Your task to perform on an android device: What's the weather today? Image 0: 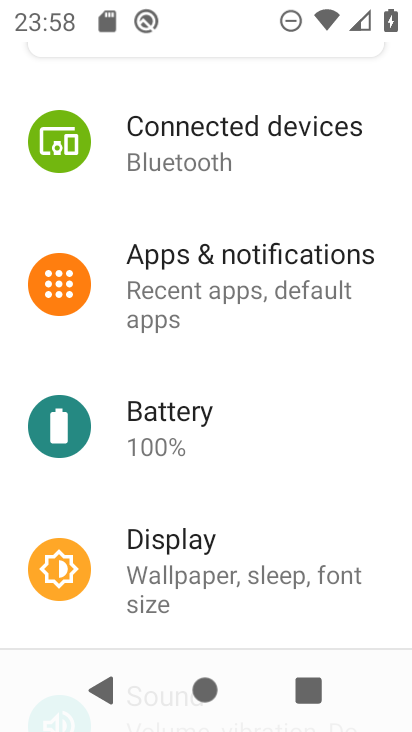
Step 0: press home button
Your task to perform on an android device: What's the weather today? Image 1: 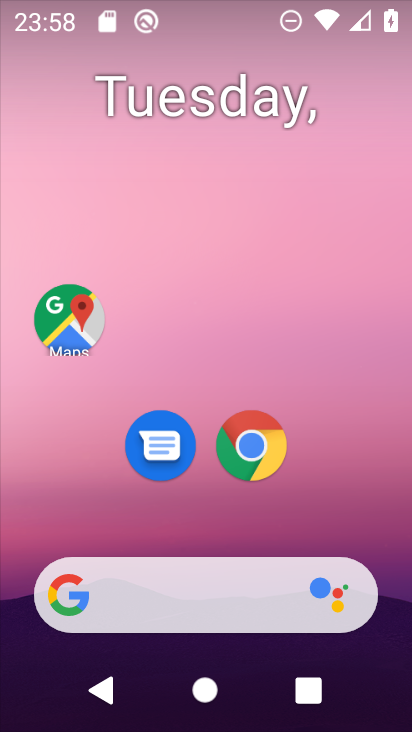
Step 1: click (211, 594)
Your task to perform on an android device: What's the weather today? Image 2: 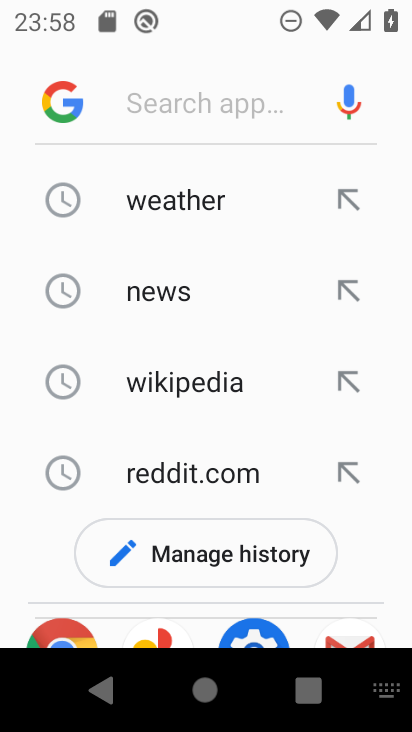
Step 2: type "what's the weather today"
Your task to perform on an android device: What's the weather today? Image 3: 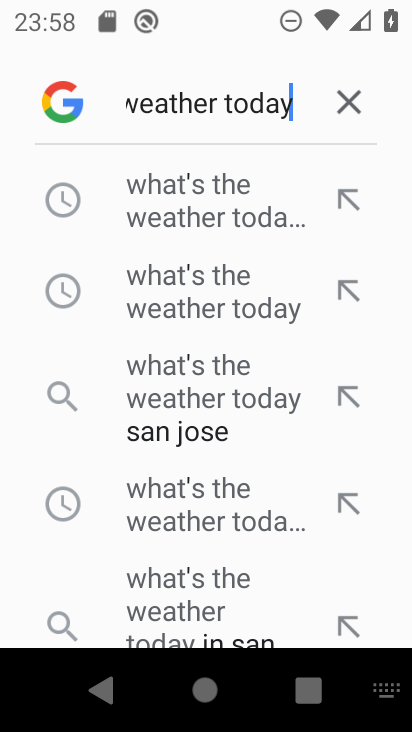
Step 3: click (212, 210)
Your task to perform on an android device: What's the weather today? Image 4: 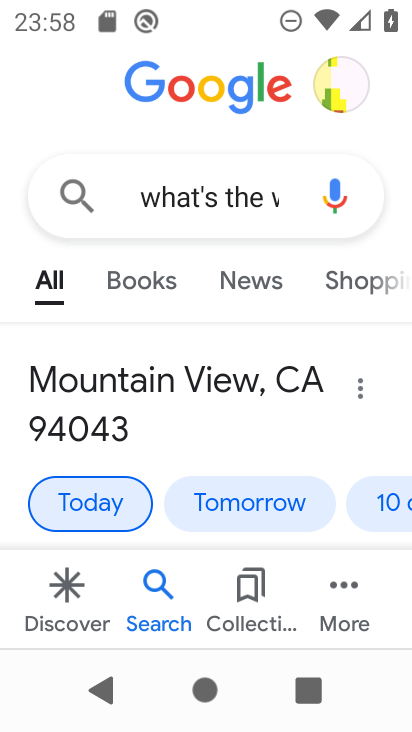
Step 4: task complete